Your task to perform on an android device: turn off data saver in the chrome app Image 0: 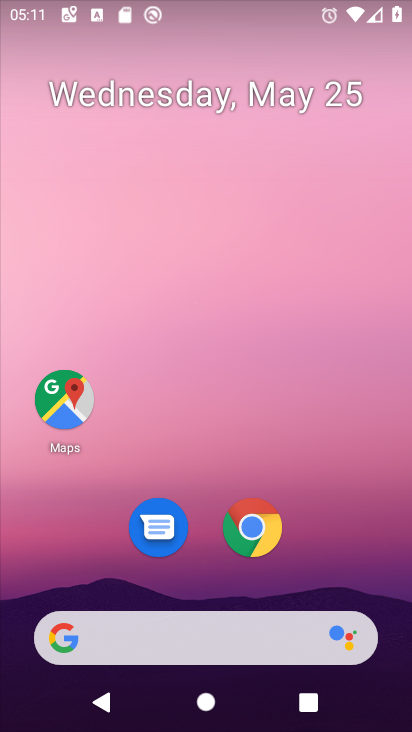
Step 0: drag from (204, 523) to (206, 169)
Your task to perform on an android device: turn off data saver in the chrome app Image 1: 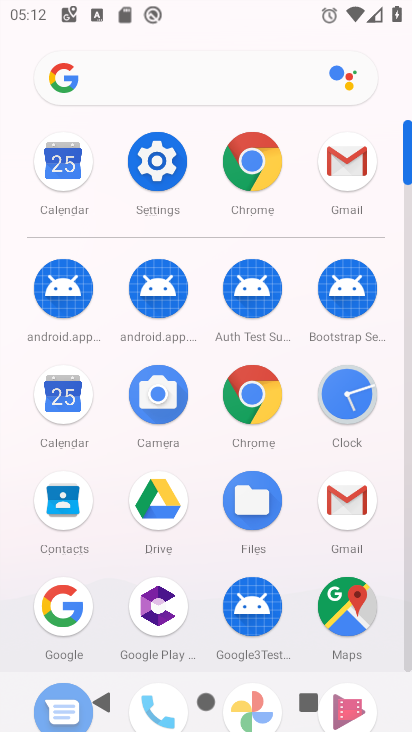
Step 1: click (247, 173)
Your task to perform on an android device: turn off data saver in the chrome app Image 2: 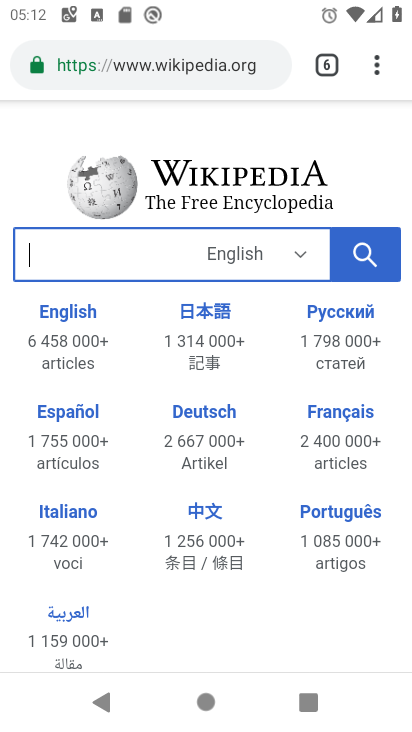
Step 2: click (376, 74)
Your task to perform on an android device: turn off data saver in the chrome app Image 3: 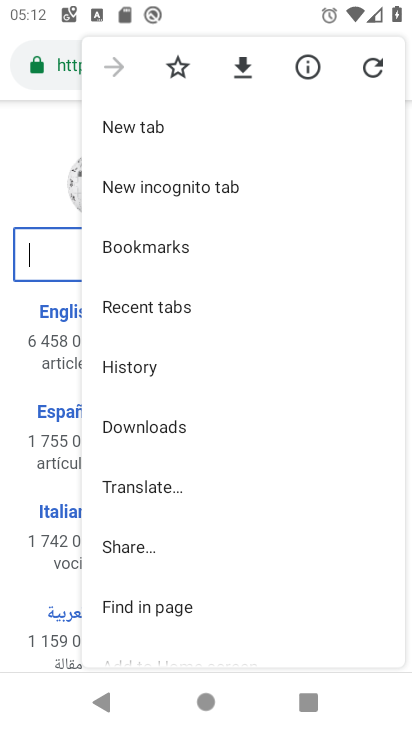
Step 3: drag from (265, 454) to (249, 187)
Your task to perform on an android device: turn off data saver in the chrome app Image 4: 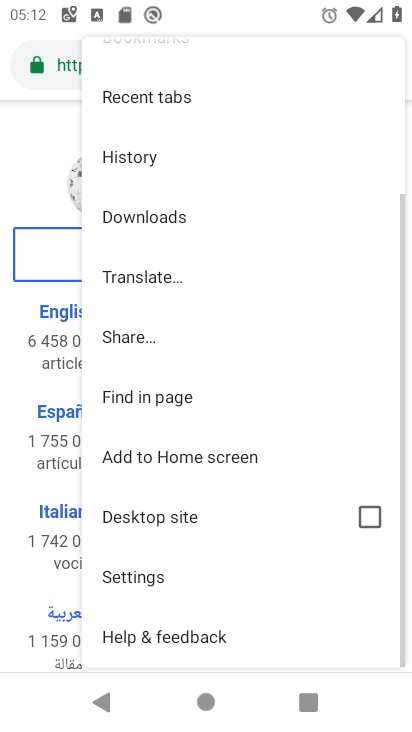
Step 4: click (154, 572)
Your task to perform on an android device: turn off data saver in the chrome app Image 5: 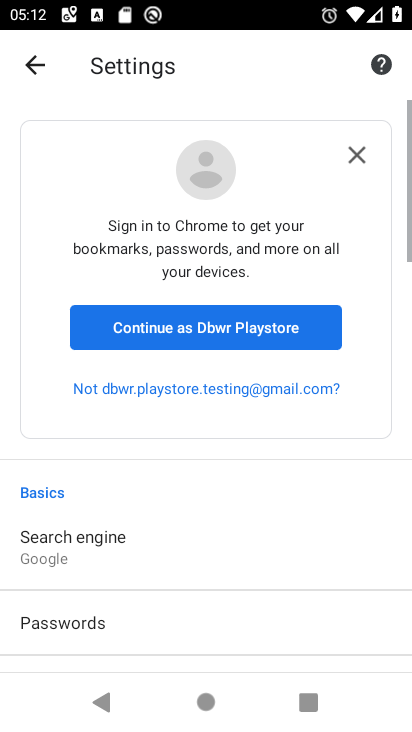
Step 5: drag from (207, 577) to (220, 266)
Your task to perform on an android device: turn off data saver in the chrome app Image 6: 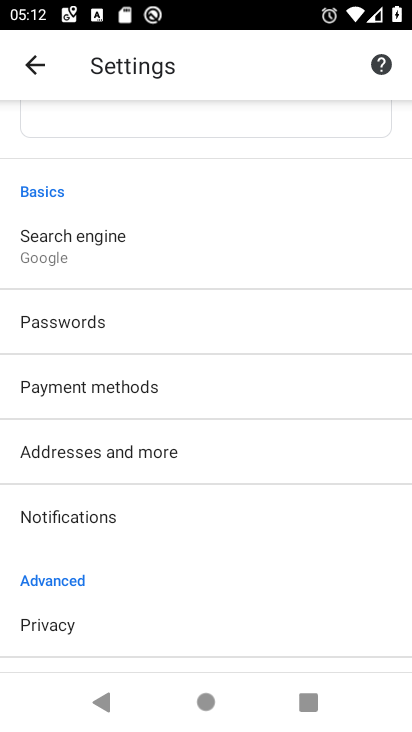
Step 6: drag from (216, 566) to (254, 333)
Your task to perform on an android device: turn off data saver in the chrome app Image 7: 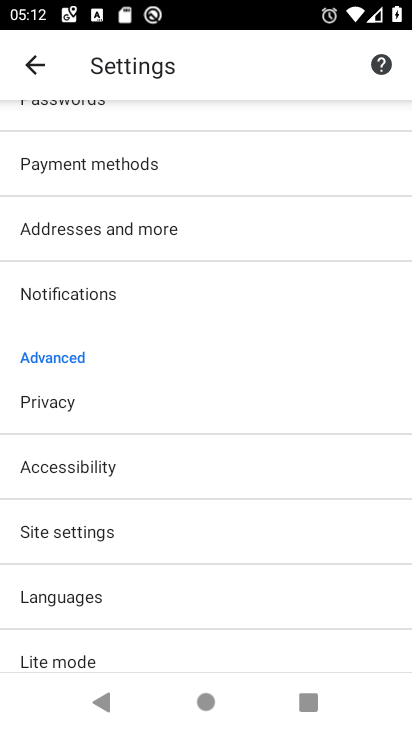
Step 7: drag from (153, 621) to (169, 357)
Your task to perform on an android device: turn off data saver in the chrome app Image 8: 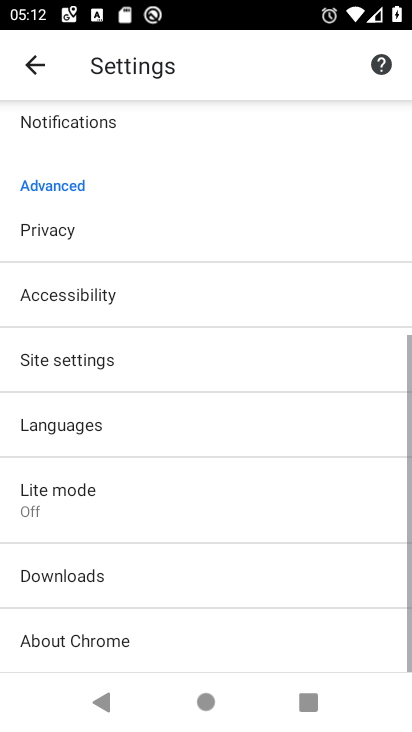
Step 8: click (90, 506)
Your task to perform on an android device: turn off data saver in the chrome app Image 9: 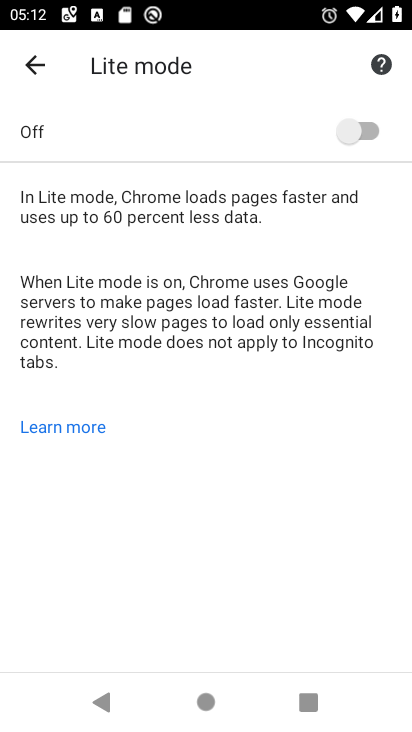
Step 9: task complete